Your task to perform on an android device: turn notification dots off Image 0: 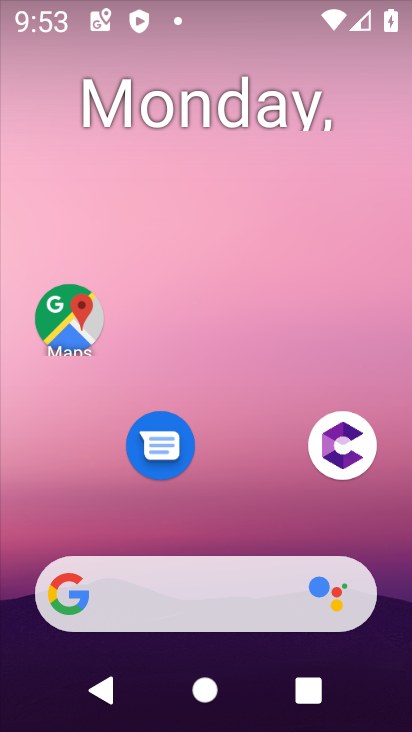
Step 0: press home button
Your task to perform on an android device: turn notification dots off Image 1: 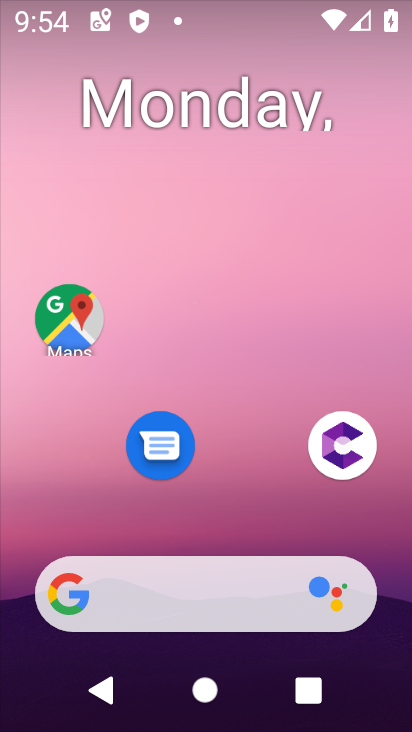
Step 1: drag from (253, 542) to (261, 99)
Your task to perform on an android device: turn notification dots off Image 2: 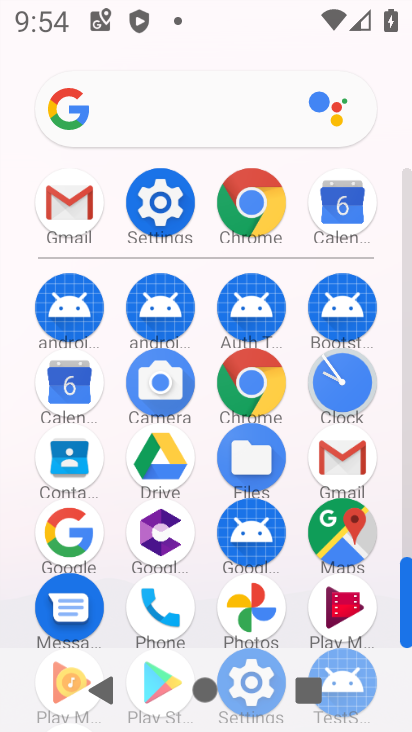
Step 2: click (164, 211)
Your task to perform on an android device: turn notification dots off Image 3: 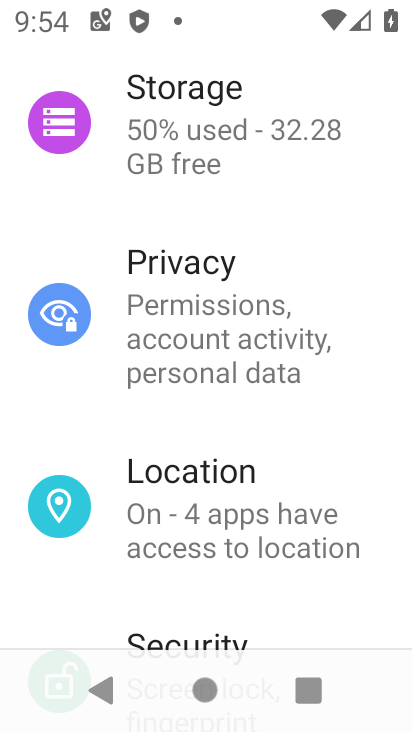
Step 3: drag from (289, 115) to (297, 652)
Your task to perform on an android device: turn notification dots off Image 4: 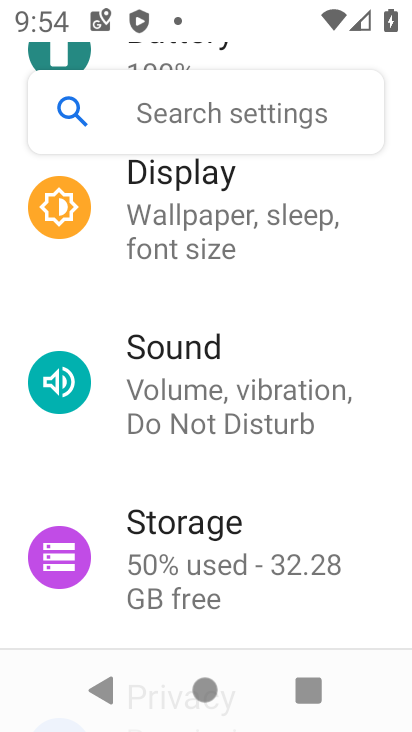
Step 4: drag from (329, 191) to (292, 603)
Your task to perform on an android device: turn notification dots off Image 5: 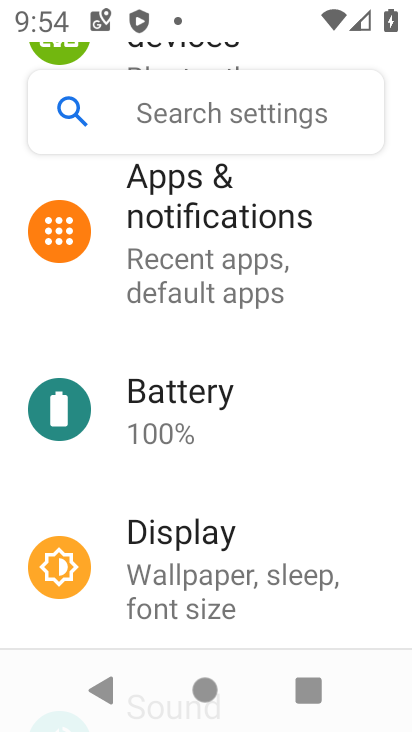
Step 5: click (202, 209)
Your task to perform on an android device: turn notification dots off Image 6: 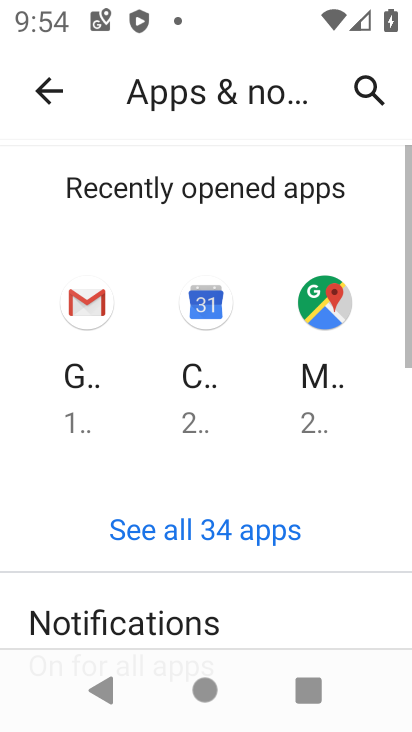
Step 6: click (122, 626)
Your task to perform on an android device: turn notification dots off Image 7: 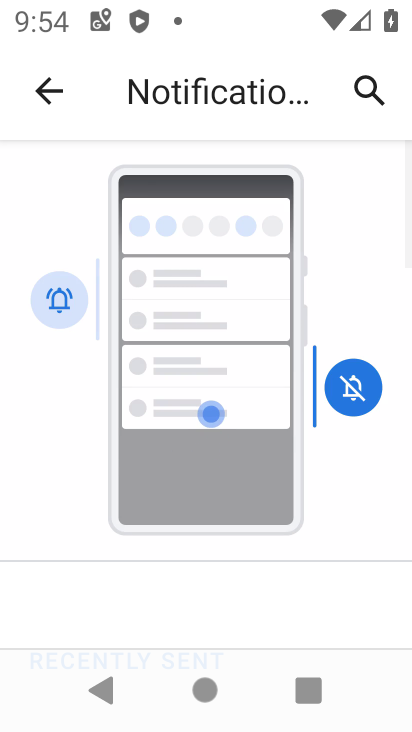
Step 7: drag from (343, 619) to (352, 76)
Your task to perform on an android device: turn notification dots off Image 8: 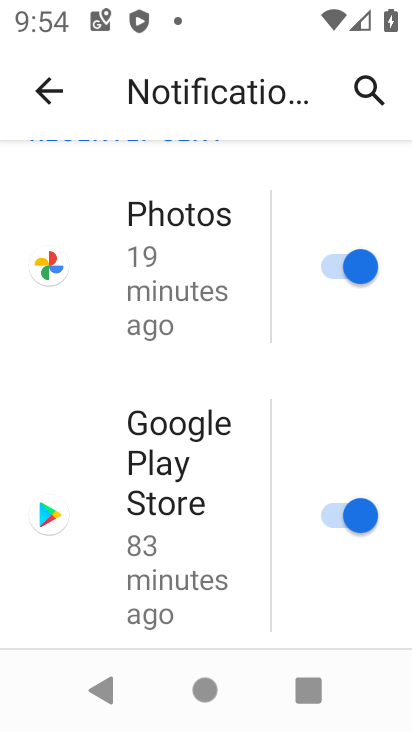
Step 8: drag from (368, 509) to (347, 119)
Your task to perform on an android device: turn notification dots off Image 9: 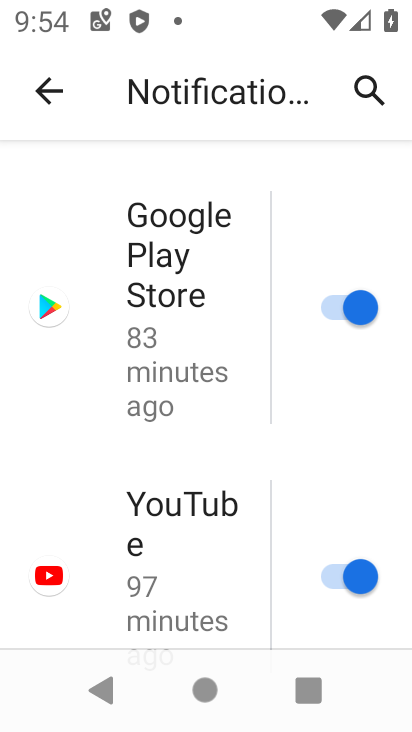
Step 9: drag from (292, 591) to (297, 70)
Your task to perform on an android device: turn notification dots off Image 10: 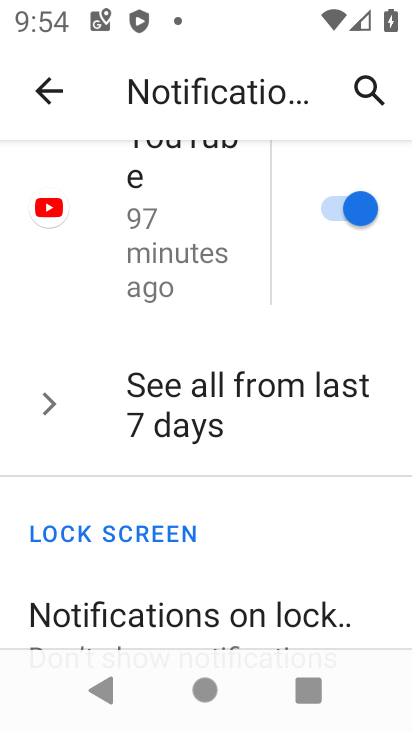
Step 10: drag from (264, 584) to (277, 111)
Your task to perform on an android device: turn notification dots off Image 11: 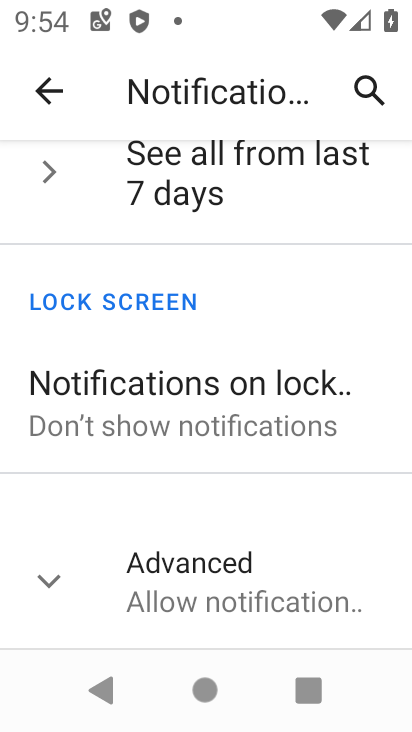
Step 11: click (196, 594)
Your task to perform on an android device: turn notification dots off Image 12: 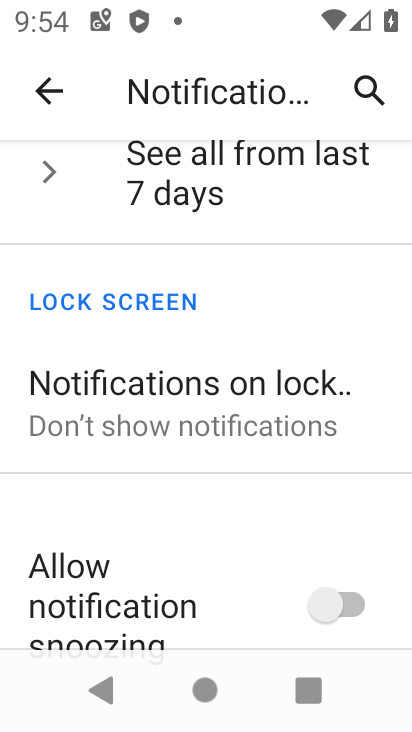
Step 12: task complete